Your task to perform on an android device: Open the calendar app, open the side menu, and click the "Day" option Image 0: 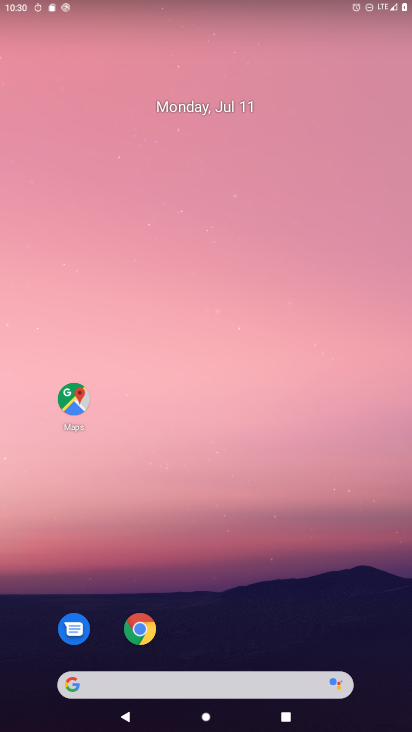
Step 0: click (187, 110)
Your task to perform on an android device: Open the calendar app, open the side menu, and click the "Day" option Image 1: 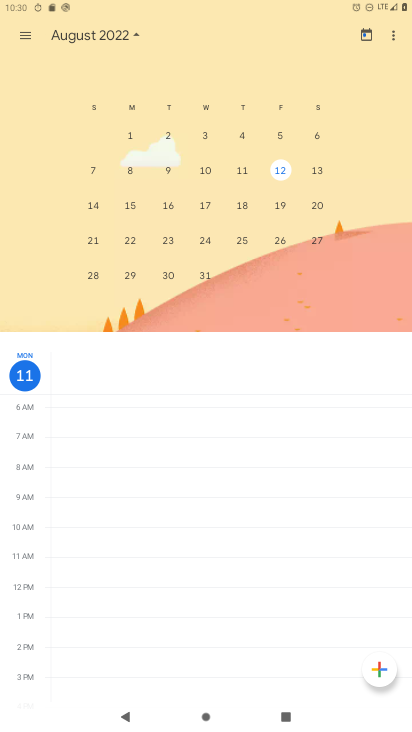
Step 1: click (25, 39)
Your task to perform on an android device: Open the calendar app, open the side menu, and click the "Day" option Image 2: 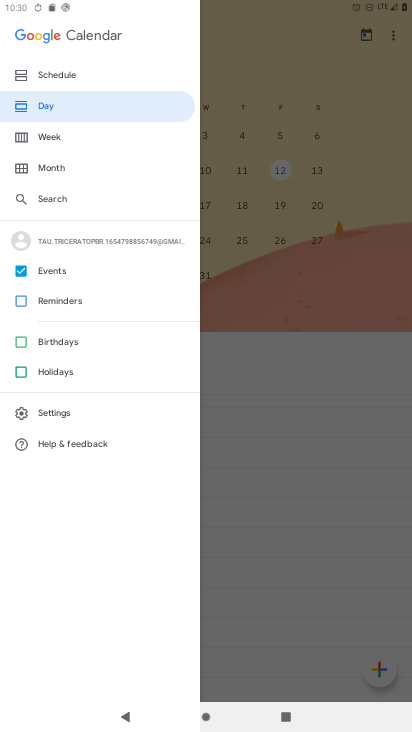
Step 2: click (59, 110)
Your task to perform on an android device: Open the calendar app, open the side menu, and click the "Day" option Image 3: 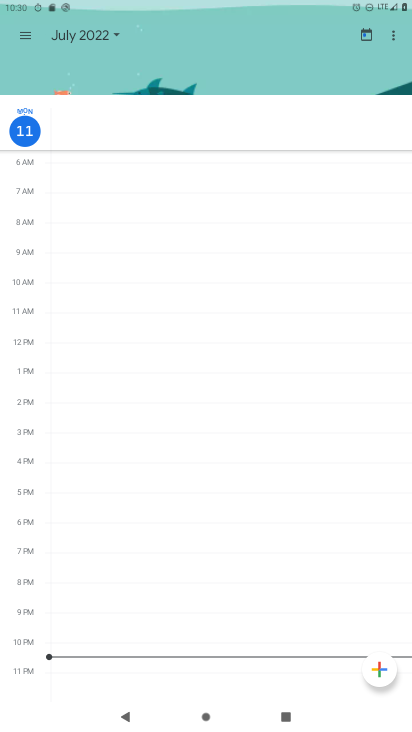
Step 3: task complete